Your task to perform on an android device: What's the weather today? Image 0: 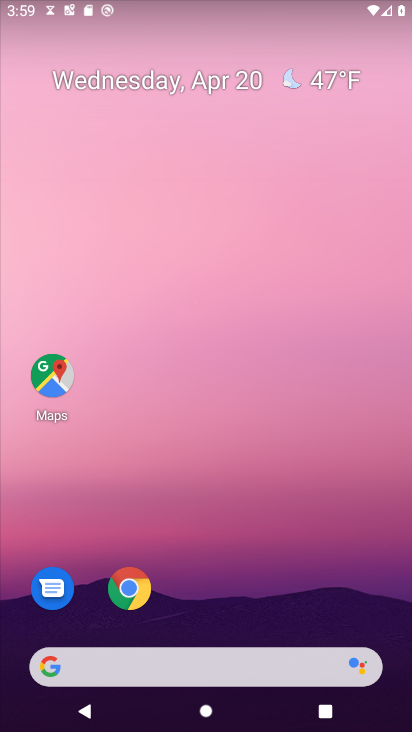
Step 0: drag from (241, 601) to (260, 210)
Your task to perform on an android device: What's the weather today? Image 1: 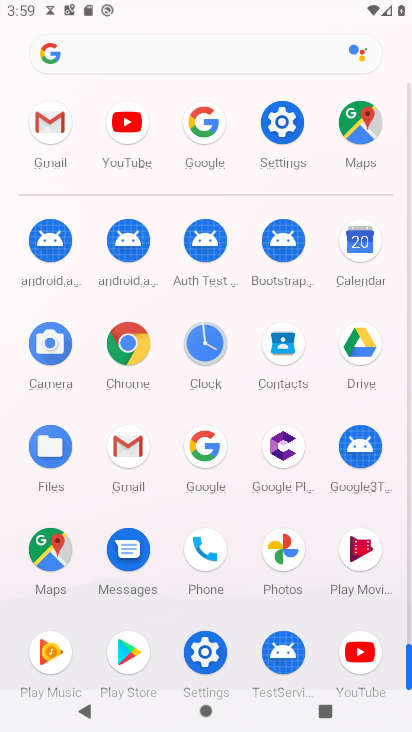
Step 1: click (197, 57)
Your task to perform on an android device: What's the weather today? Image 2: 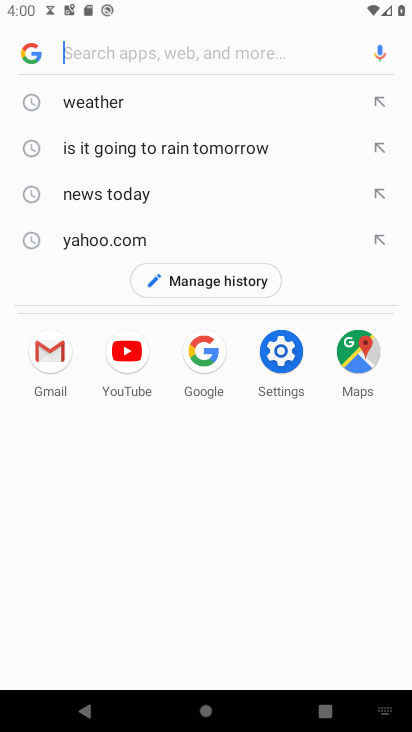
Step 2: type "what's the weather today"
Your task to perform on an android device: What's the weather today? Image 3: 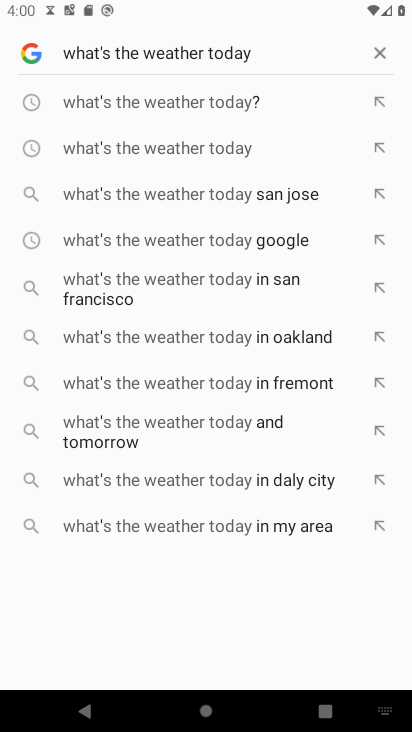
Step 3: click (160, 99)
Your task to perform on an android device: What's the weather today? Image 4: 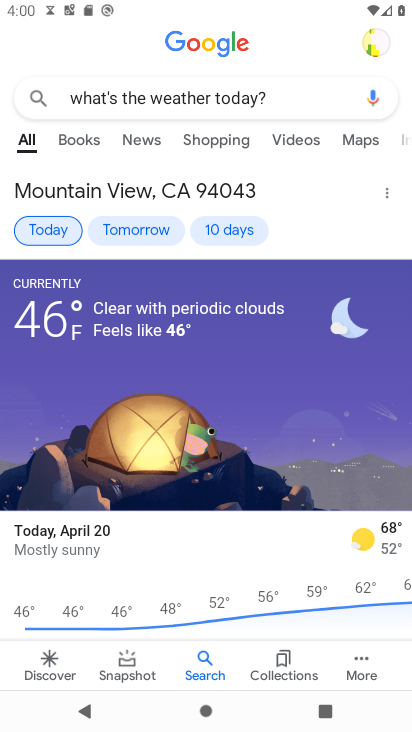
Step 4: task complete